Your task to perform on an android device: Open Maps and search for coffee Image 0: 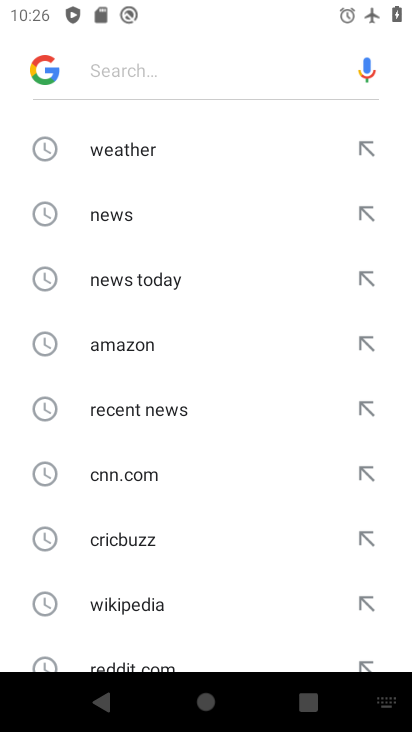
Step 0: press home button
Your task to perform on an android device: Open Maps and search for coffee Image 1: 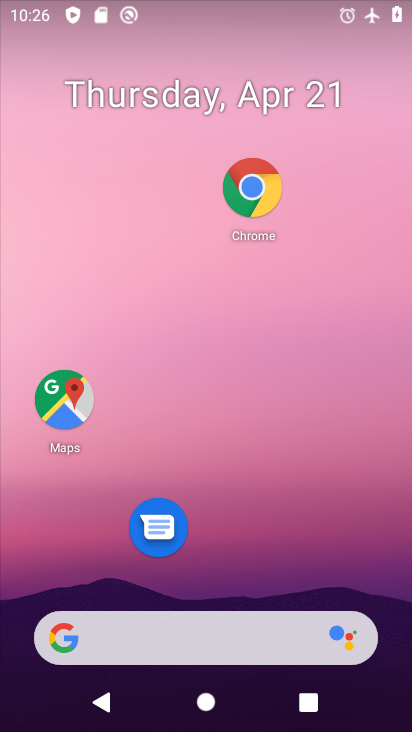
Step 1: drag from (265, 591) to (318, 205)
Your task to perform on an android device: Open Maps and search for coffee Image 2: 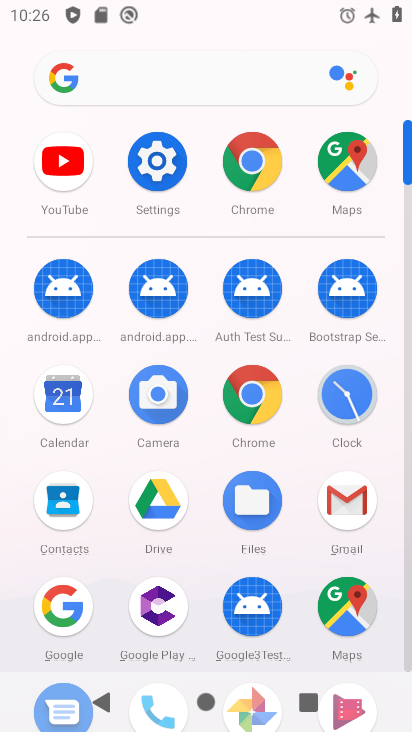
Step 2: click (361, 607)
Your task to perform on an android device: Open Maps and search for coffee Image 3: 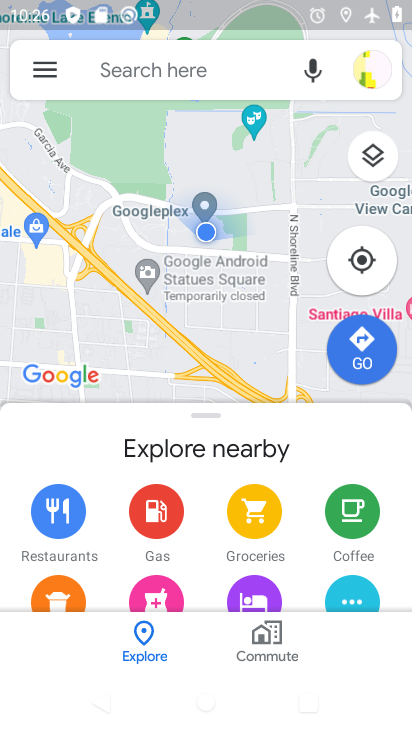
Step 3: click (221, 71)
Your task to perform on an android device: Open Maps and search for coffee Image 4: 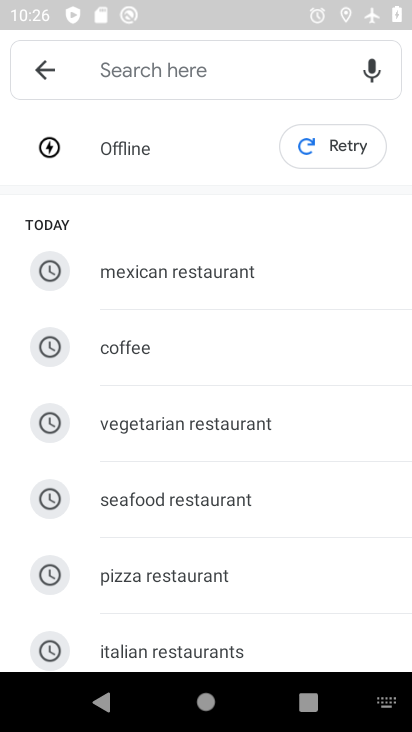
Step 4: click (177, 342)
Your task to perform on an android device: Open Maps and search for coffee Image 5: 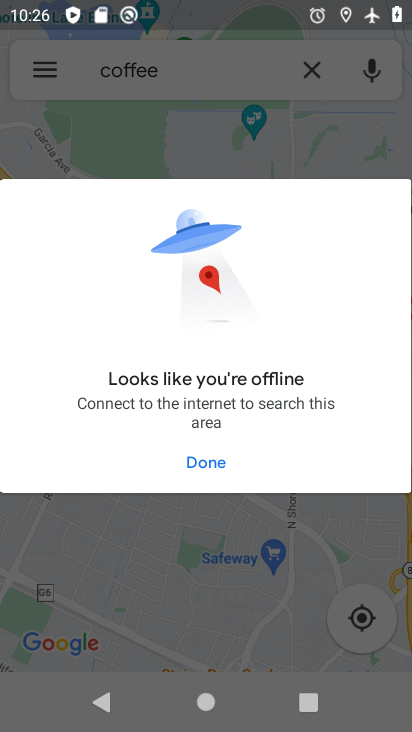
Step 5: task complete